Your task to perform on an android device: Open calendar and show me the second week of next month Image 0: 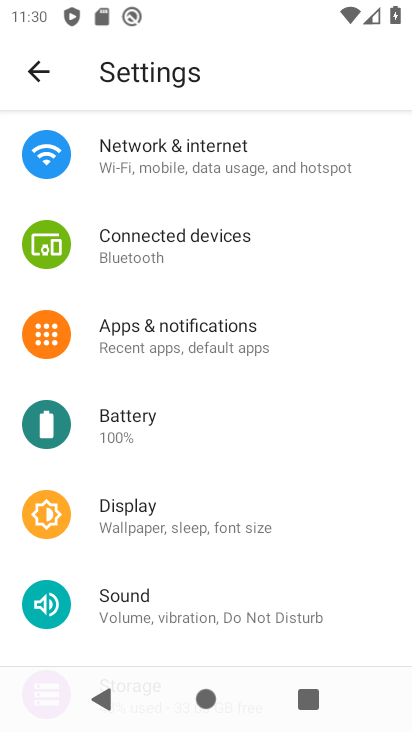
Step 0: press back button
Your task to perform on an android device: Open calendar and show me the second week of next month Image 1: 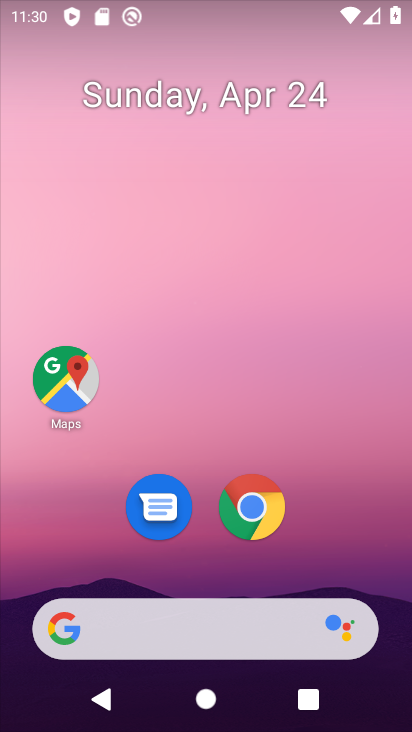
Step 1: drag from (334, 492) to (184, 25)
Your task to perform on an android device: Open calendar and show me the second week of next month Image 2: 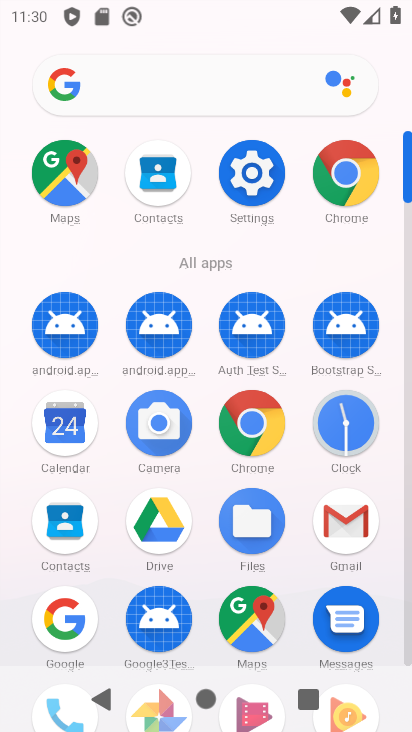
Step 2: drag from (8, 456) to (0, 229)
Your task to perform on an android device: Open calendar and show me the second week of next month Image 3: 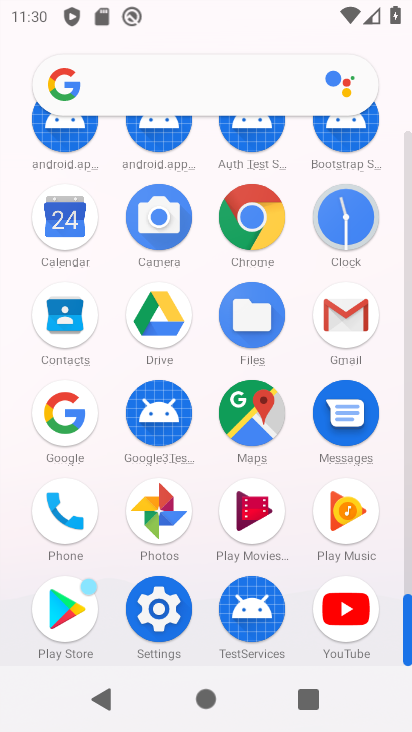
Step 3: click (65, 218)
Your task to perform on an android device: Open calendar and show me the second week of next month Image 4: 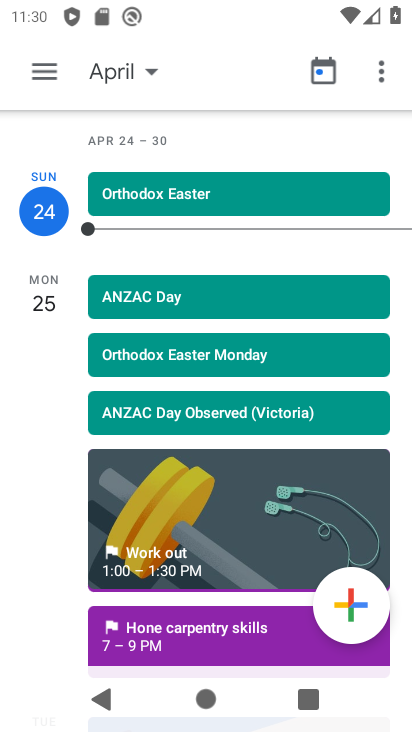
Step 4: click (31, 54)
Your task to perform on an android device: Open calendar and show me the second week of next month Image 5: 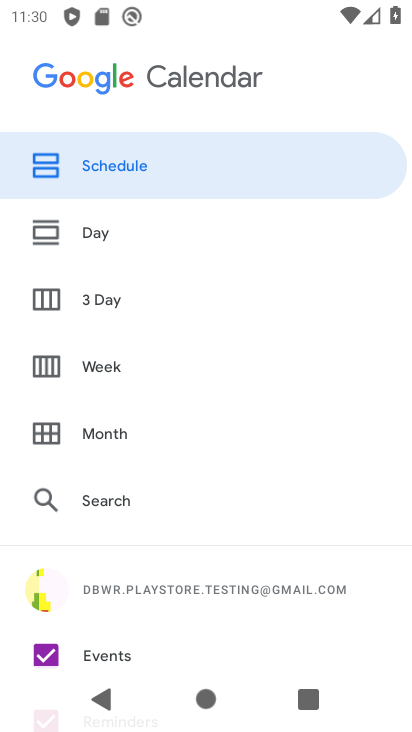
Step 5: drag from (163, 489) to (160, 79)
Your task to perform on an android device: Open calendar and show me the second week of next month Image 6: 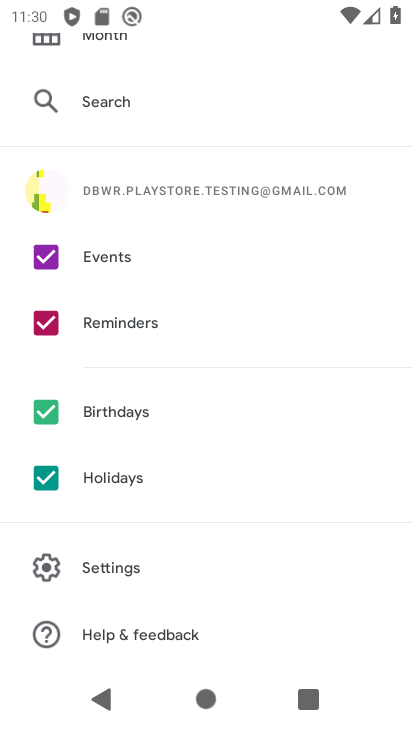
Step 6: drag from (178, 471) to (180, 77)
Your task to perform on an android device: Open calendar and show me the second week of next month Image 7: 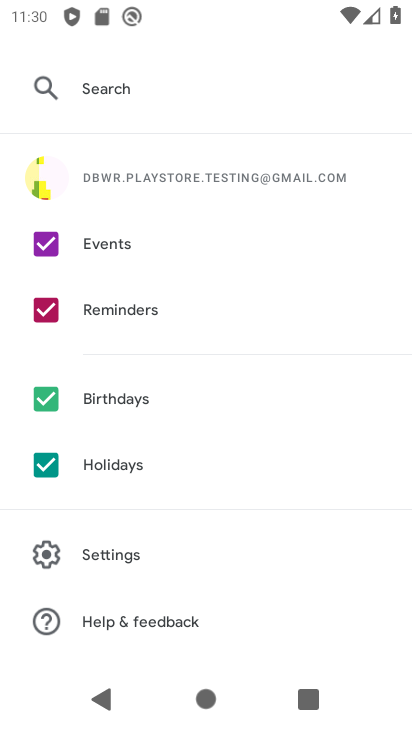
Step 7: drag from (173, 179) to (177, 540)
Your task to perform on an android device: Open calendar and show me the second week of next month Image 8: 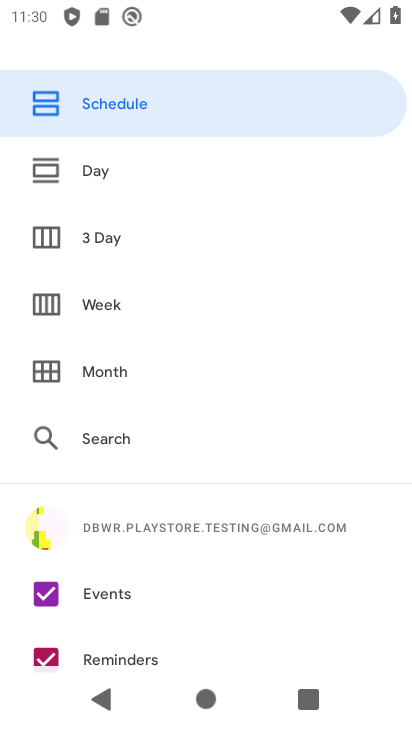
Step 8: drag from (244, 168) to (233, 517)
Your task to perform on an android device: Open calendar and show me the second week of next month Image 9: 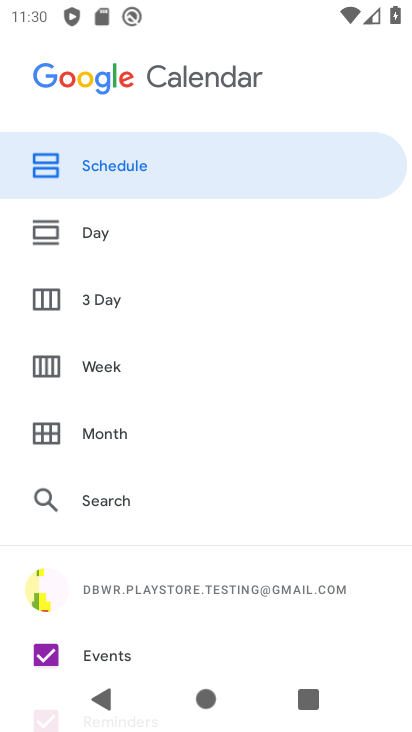
Step 9: drag from (252, 425) to (240, 38)
Your task to perform on an android device: Open calendar and show me the second week of next month Image 10: 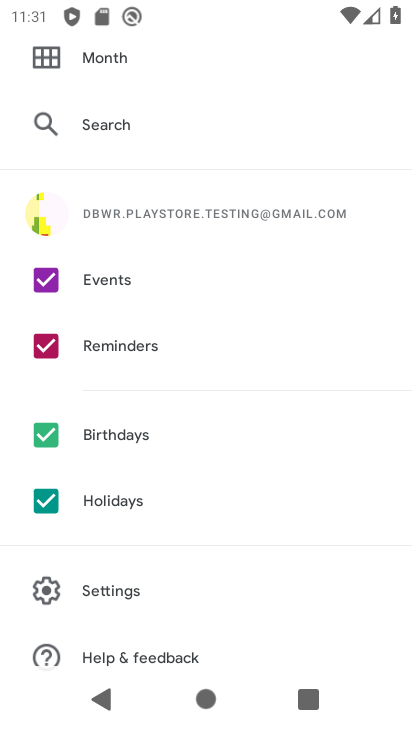
Step 10: drag from (240, 100) to (217, 590)
Your task to perform on an android device: Open calendar and show me the second week of next month Image 11: 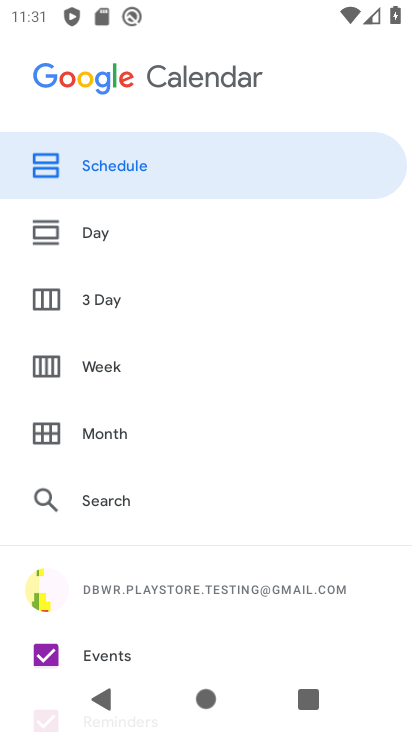
Step 11: click (126, 430)
Your task to perform on an android device: Open calendar and show me the second week of next month Image 12: 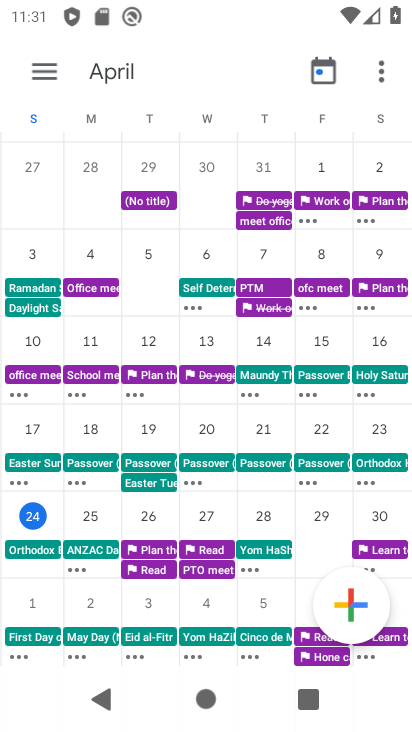
Step 12: drag from (325, 295) to (0, 213)
Your task to perform on an android device: Open calendar and show me the second week of next month Image 13: 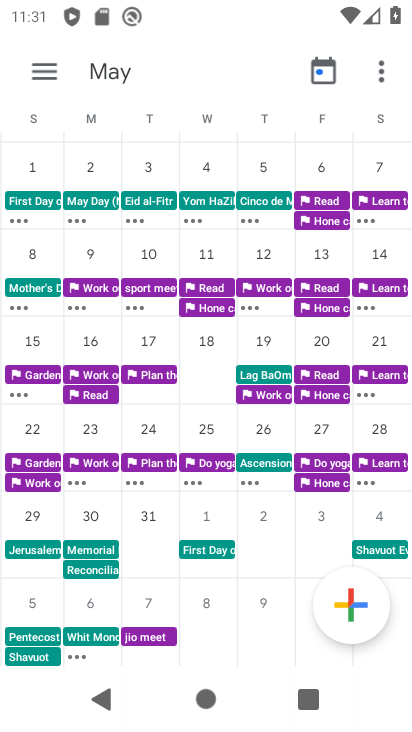
Step 13: click (34, 262)
Your task to perform on an android device: Open calendar and show me the second week of next month Image 14: 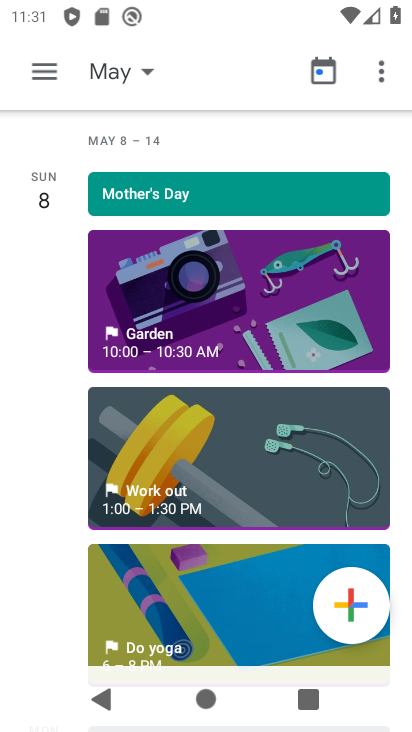
Step 14: click (40, 72)
Your task to perform on an android device: Open calendar and show me the second week of next month Image 15: 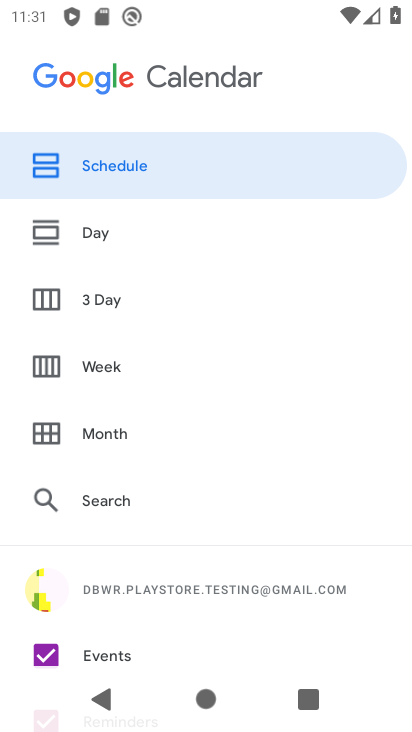
Step 15: click (107, 360)
Your task to perform on an android device: Open calendar and show me the second week of next month Image 16: 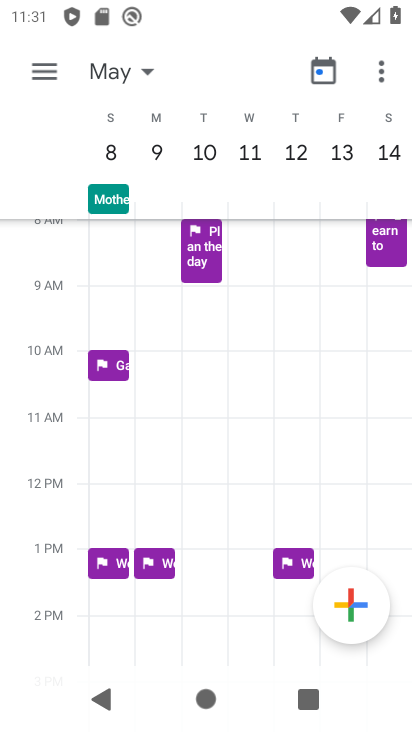
Step 16: task complete